Your task to perform on an android device: install app "Venmo" Image 0: 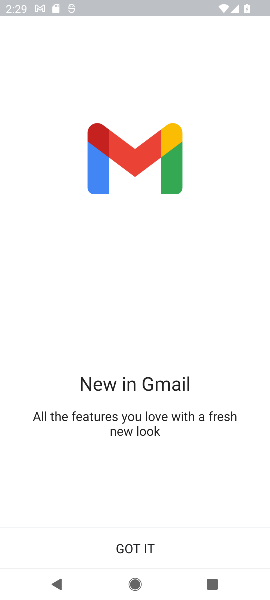
Step 0: press home button
Your task to perform on an android device: install app "Venmo" Image 1: 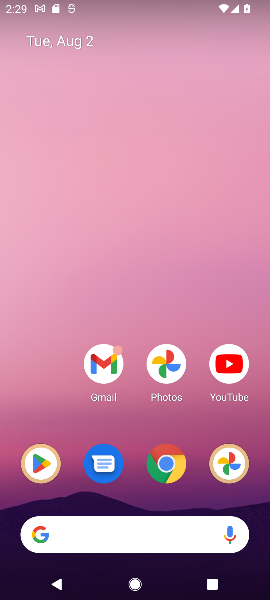
Step 1: click (45, 454)
Your task to perform on an android device: install app "Venmo" Image 2: 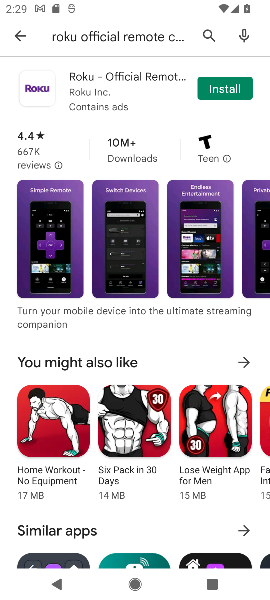
Step 2: click (207, 30)
Your task to perform on an android device: install app "Venmo" Image 3: 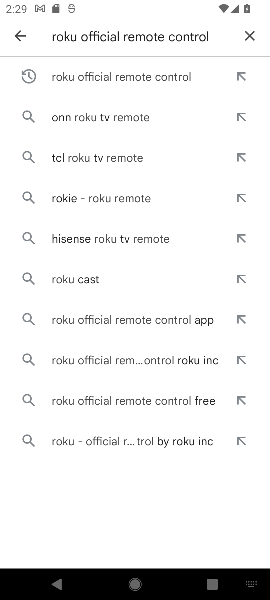
Step 3: click (243, 35)
Your task to perform on an android device: install app "Venmo" Image 4: 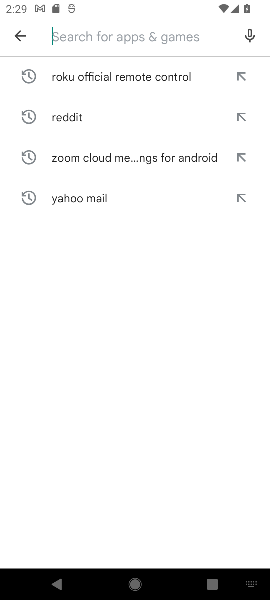
Step 4: type "Venmo"
Your task to perform on an android device: install app "Venmo" Image 5: 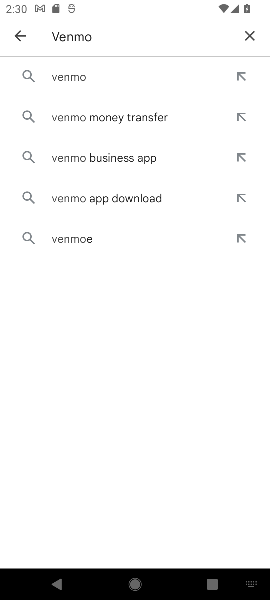
Step 5: click (73, 78)
Your task to perform on an android device: install app "Venmo" Image 6: 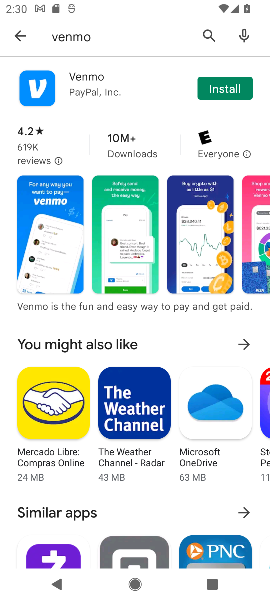
Step 6: click (224, 93)
Your task to perform on an android device: install app "Venmo" Image 7: 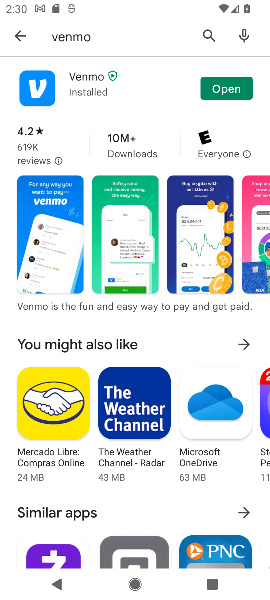
Step 7: task complete